Your task to perform on an android device: Open Google Chrome Image 0: 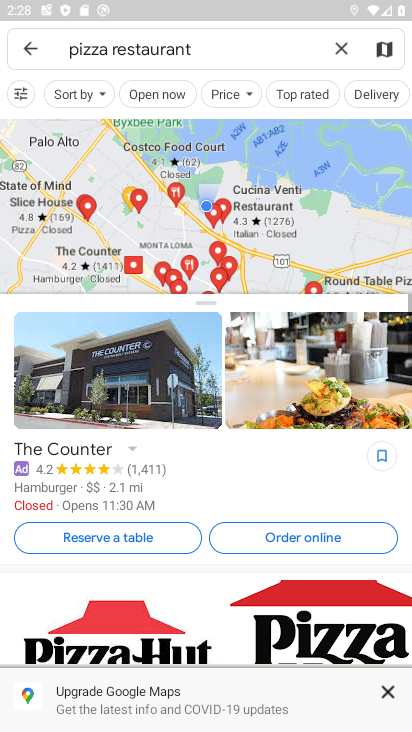
Step 0: press home button
Your task to perform on an android device: Open Google Chrome Image 1: 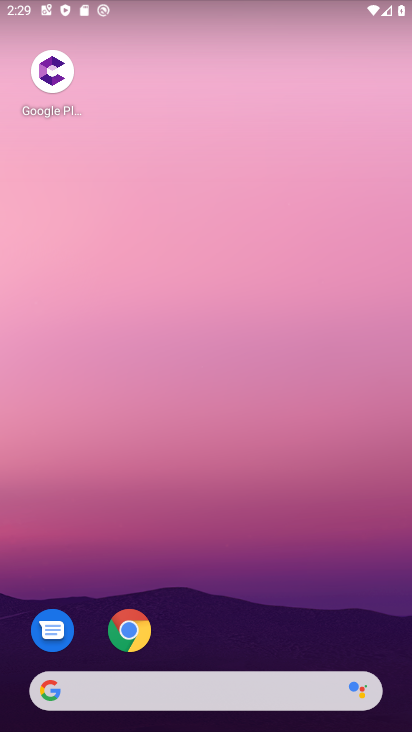
Step 1: click (124, 625)
Your task to perform on an android device: Open Google Chrome Image 2: 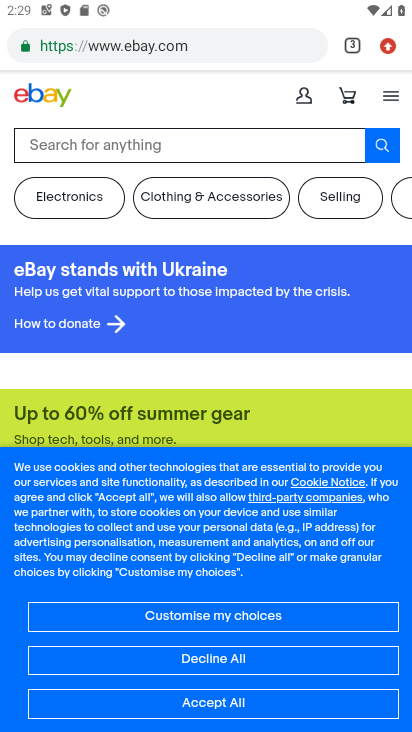
Step 2: task complete